Your task to perform on an android device: Go to Google Image 0: 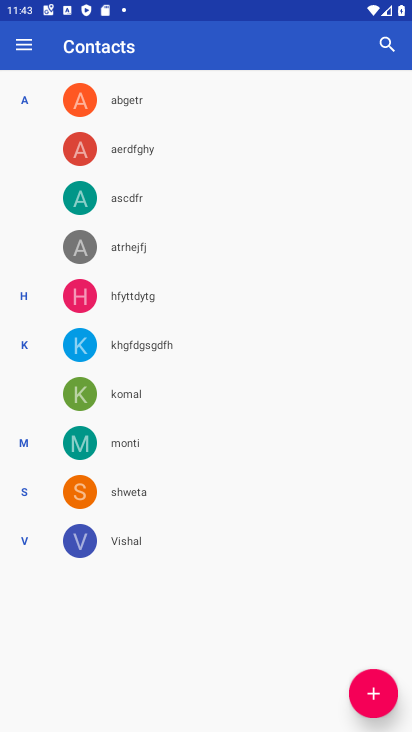
Step 0: press home button
Your task to perform on an android device: Go to Google Image 1: 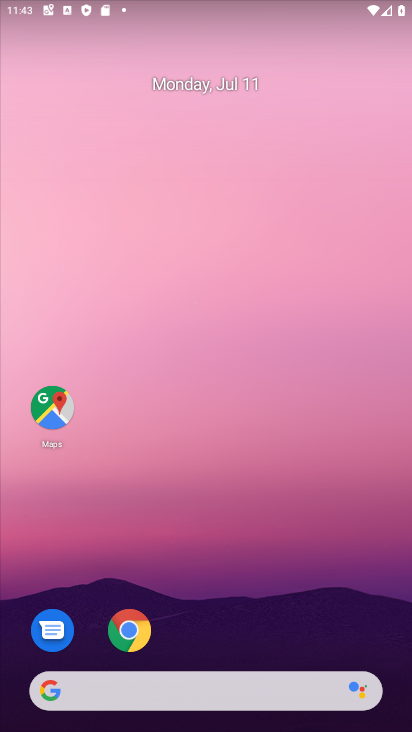
Step 1: click (128, 628)
Your task to perform on an android device: Go to Google Image 2: 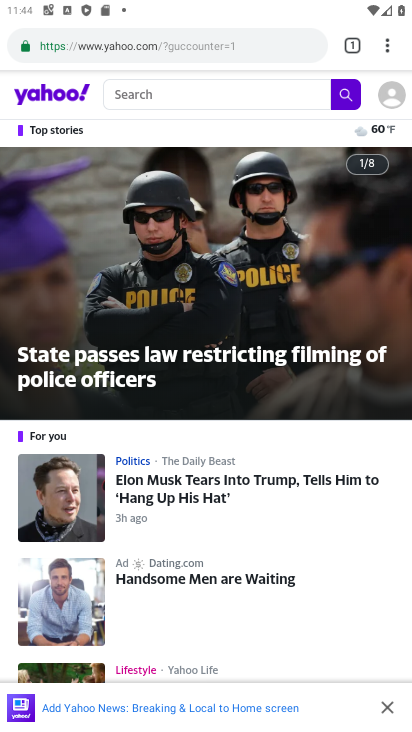
Step 2: click (244, 46)
Your task to perform on an android device: Go to Google Image 3: 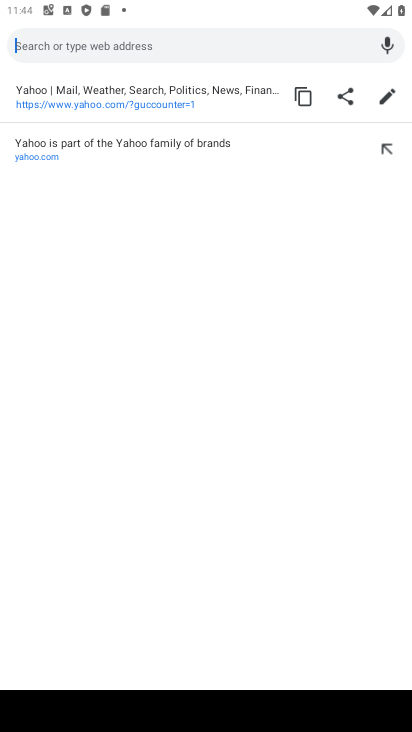
Step 3: type "google"
Your task to perform on an android device: Go to Google Image 4: 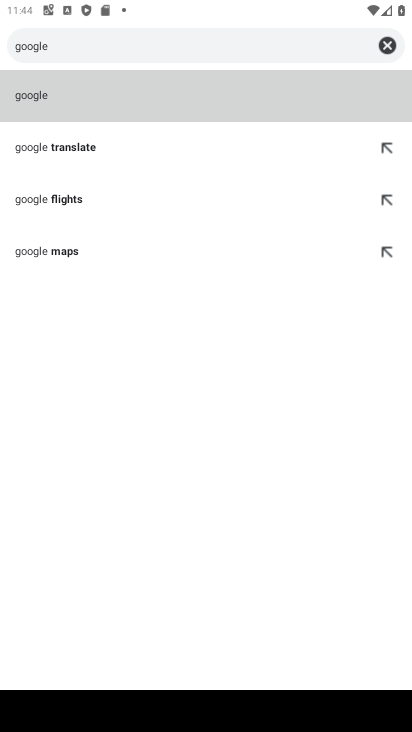
Step 4: click (33, 97)
Your task to perform on an android device: Go to Google Image 5: 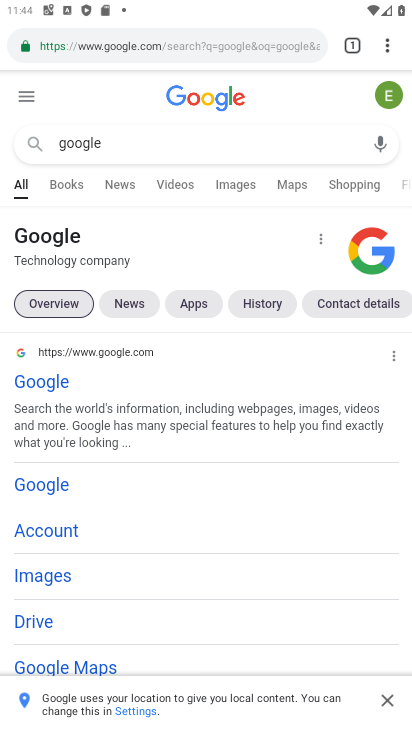
Step 5: click (56, 391)
Your task to perform on an android device: Go to Google Image 6: 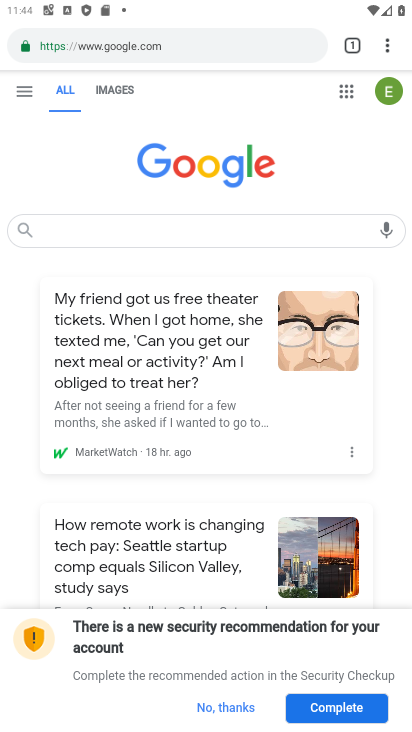
Step 6: task complete